Your task to perform on an android device: Show me recent news Image 0: 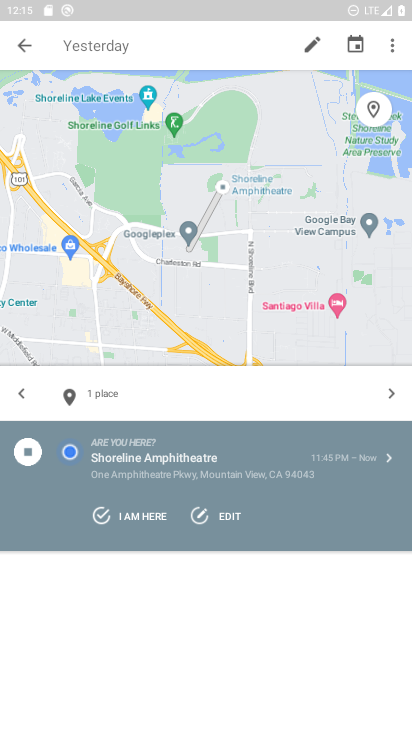
Step 0: press home button
Your task to perform on an android device: Show me recent news Image 1: 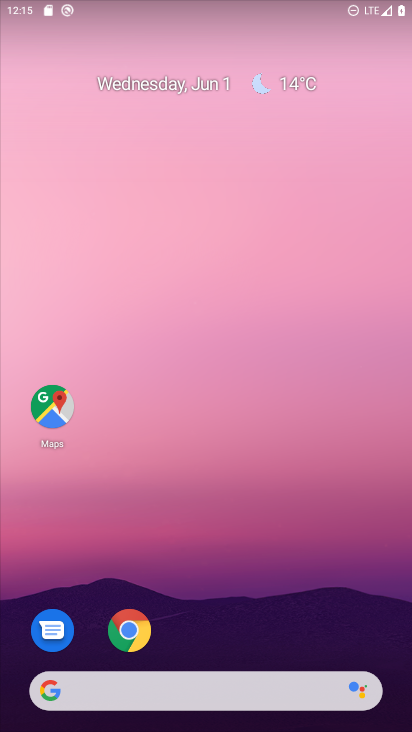
Step 1: click (139, 626)
Your task to perform on an android device: Show me recent news Image 2: 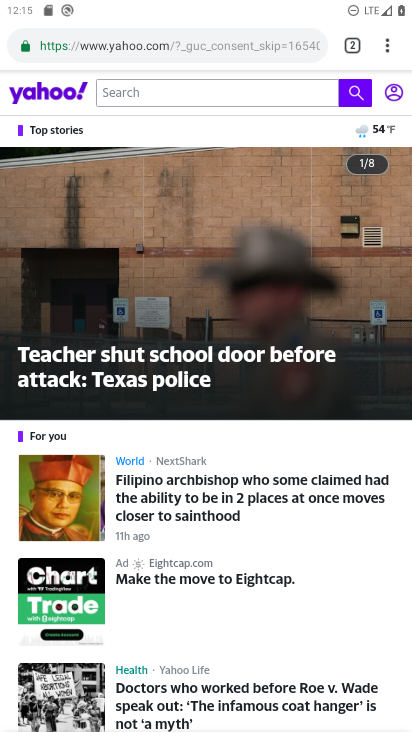
Step 2: click (139, 52)
Your task to perform on an android device: Show me recent news Image 3: 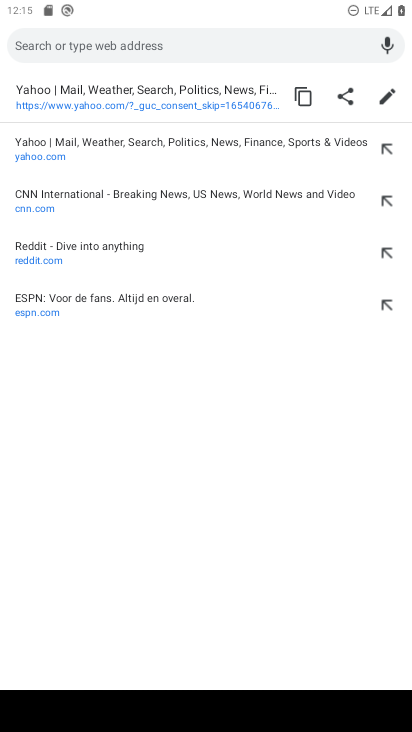
Step 3: type "news"
Your task to perform on an android device: Show me recent news Image 4: 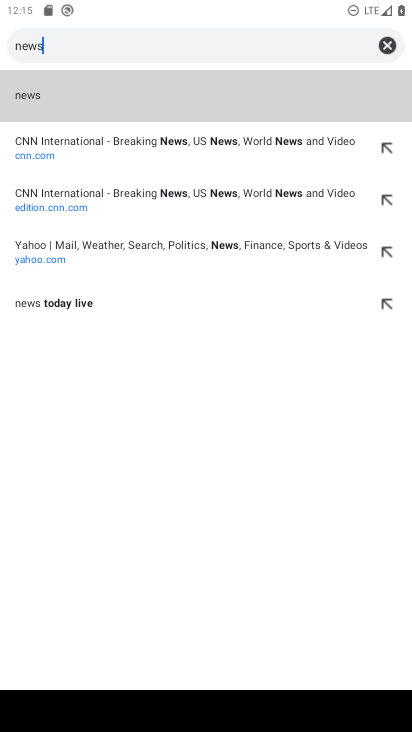
Step 4: click (31, 88)
Your task to perform on an android device: Show me recent news Image 5: 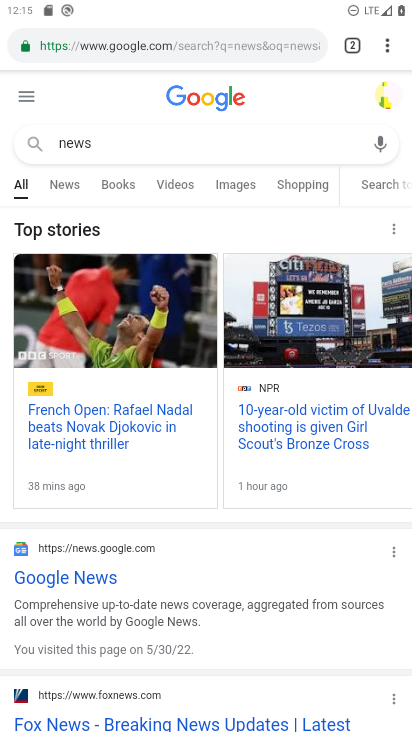
Step 5: click (76, 181)
Your task to perform on an android device: Show me recent news Image 6: 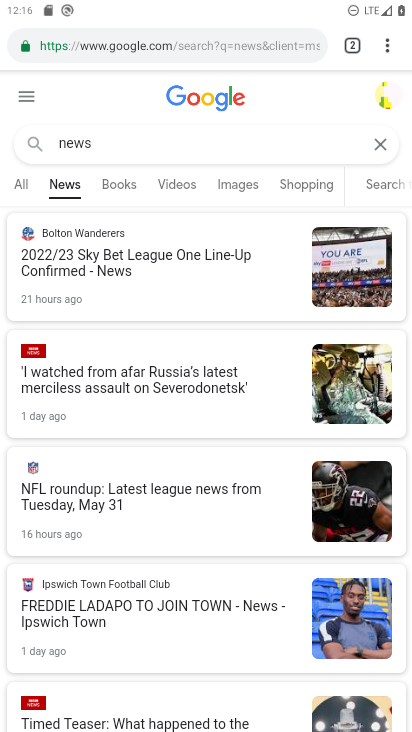
Step 6: task complete